Your task to perform on an android device: check google app version Image 0: 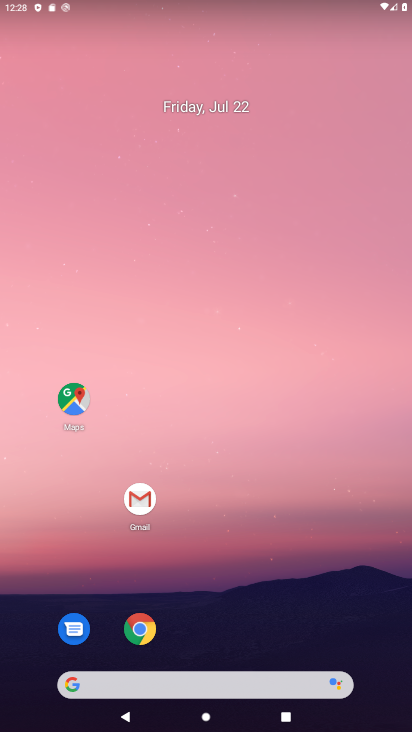
Step 0: drag from (262, 724) to (266, 257)
Your task to perform on an android device: check google app version Image 1: 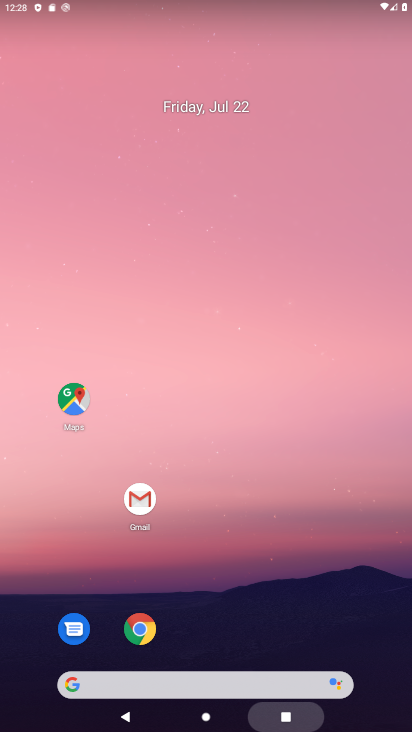
Step 1: drag from (236, 478) to (227, 186)
Your task to perform on an android device: check google app version Image 2: 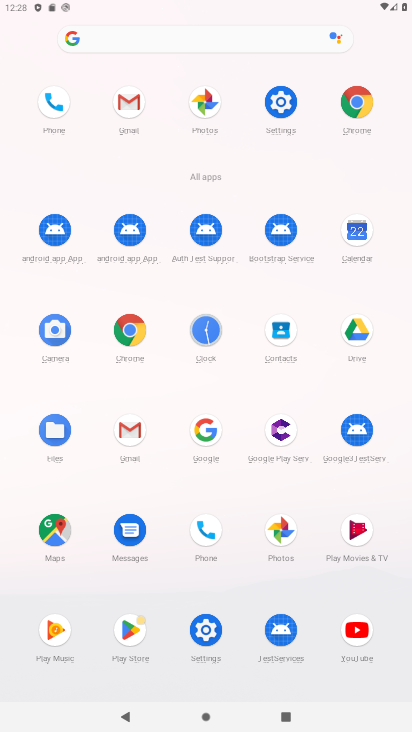
Step 2: click (208, 430)
Your task to perform on an android device: check google app version Image 3: 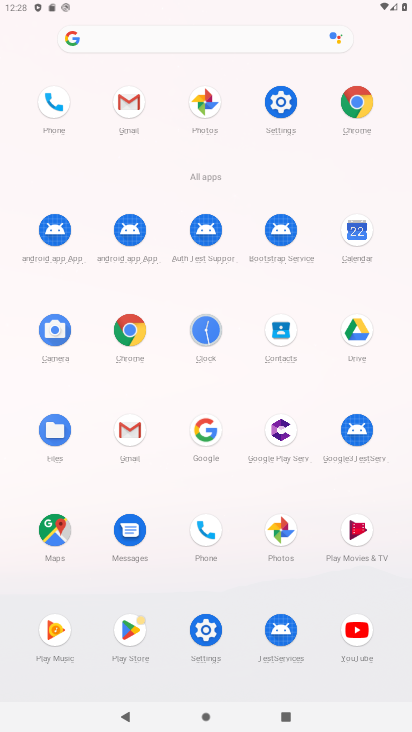
Step 3: click (208, 429)
Your task to perform on an android device: check google app version Image 4: 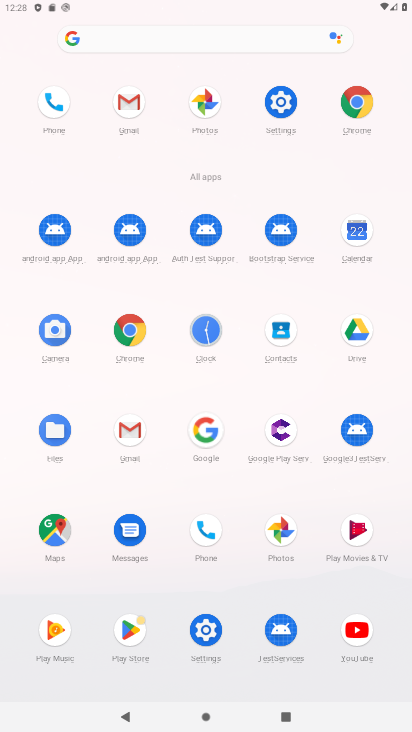
Step 4: click (208, 429)
Your task to perform on an android device: check google app version Image 5: 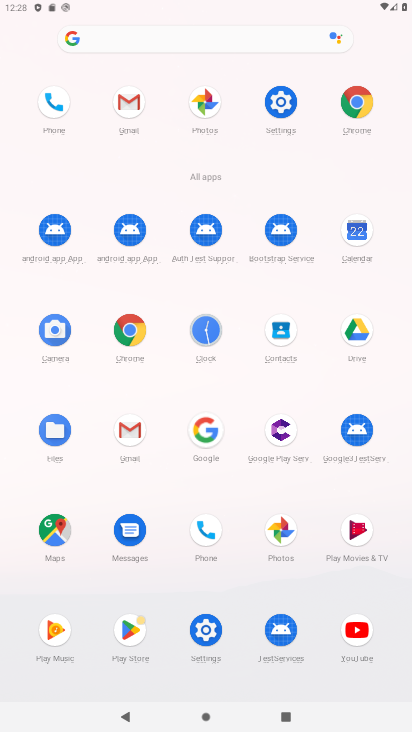
Step 5: click (208, 429)
Your task to perform on an android device: check google app version Image 6: 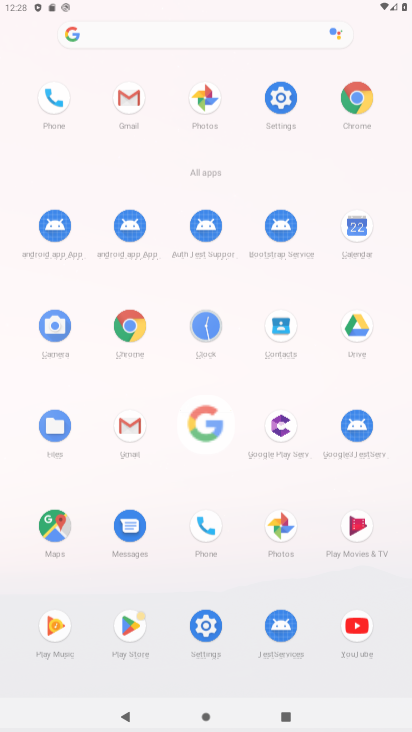
Step 6: click (208, 429)
Your task to perform on an android device: check google app version Image 7: 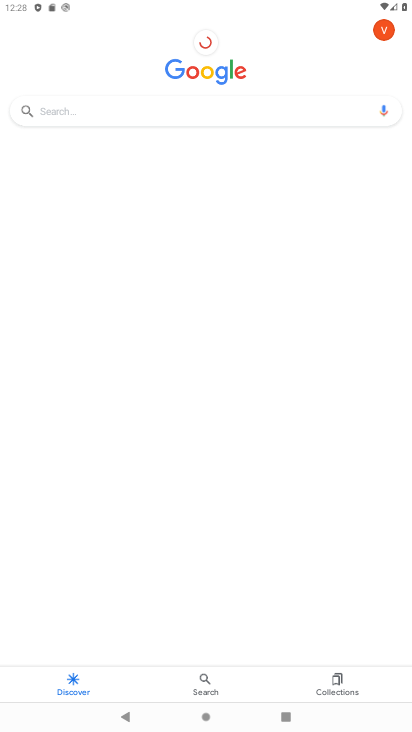
Step 7: drag from (382, 46) to (335, 480)
Your task to perform on an android device: check google app version Image 8: 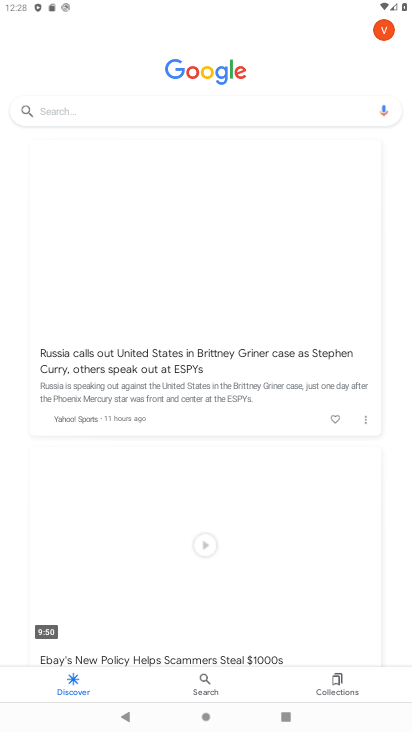
Step 8: drag from (384, 32) to (320, 425)
Your task to perform on an android device: check google app version Image 9: 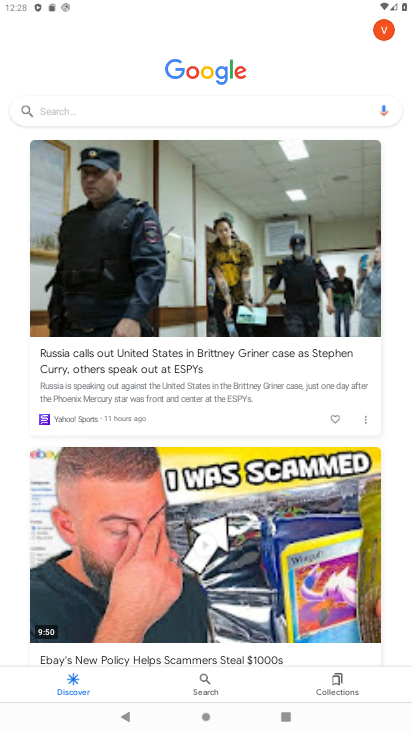
Step 9: drag from (392, 30) to (318, 389)
Your task to perform on an android device: check google app version Image 10: 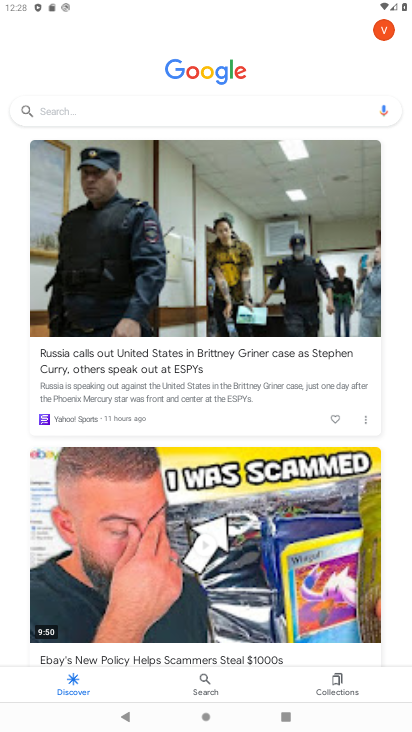
Step 10: drag from (374, 35) to (260, 425)
Your task to perform on an android device: check google app version Image 11: 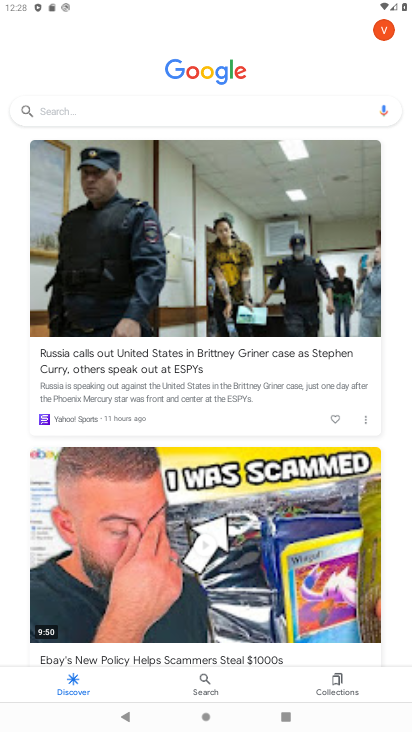
Step 11: drag from (385, 34) to (392, 374)
Your task to perform on an android device: check google app version Image 12: 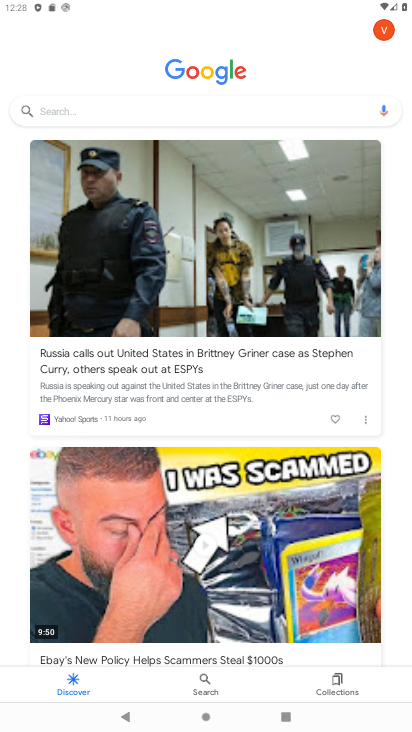
Step 12: drag from (388, 37) to (352, 348)
Your task to perform on an android device: check google app version Image 13: 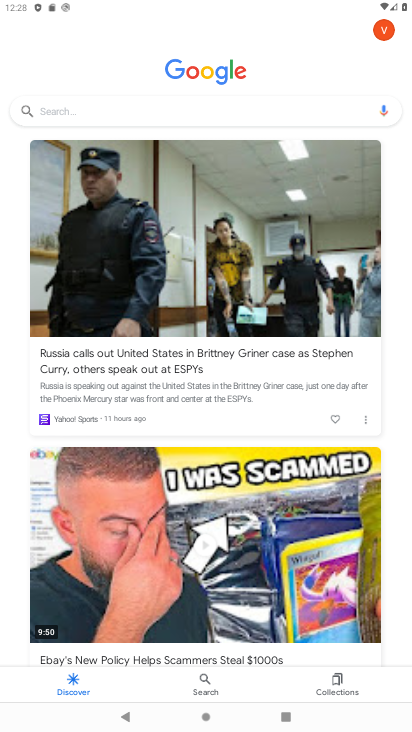
Step 13: click (385, 37)
Your task to perform on an android device: check google app version Image 14: 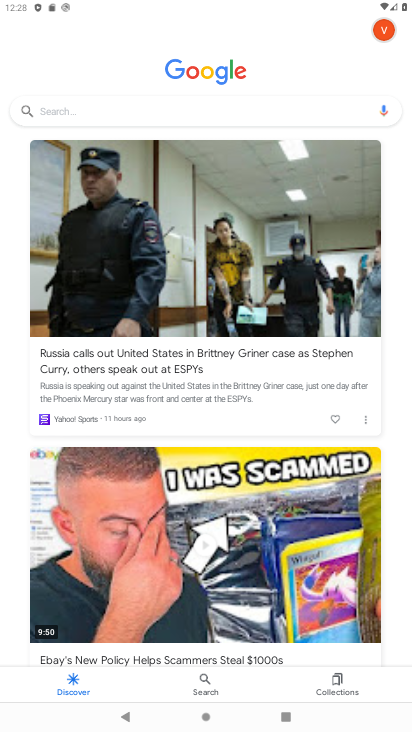
Step 14: drag from (385, 37) to (284, 338)
Your task to perform on an android device: check google app version Image 15: 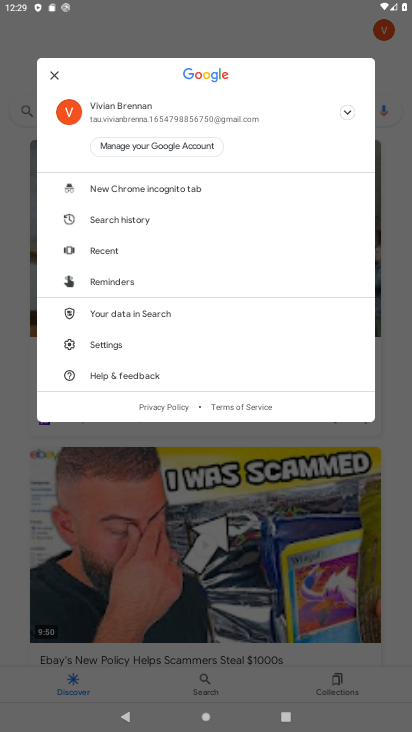
Step 15: click (110, 349)
Your task to perform on an android device: check google app version Image 16: 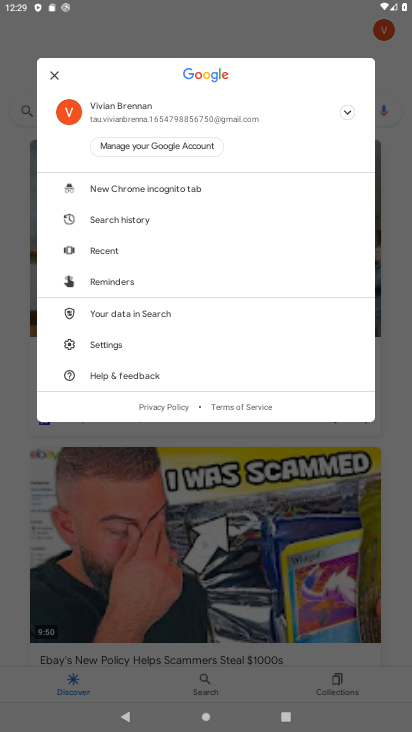
Step 16: click (107, 345)
Your task to perform on an android device: check google app version Image 17: 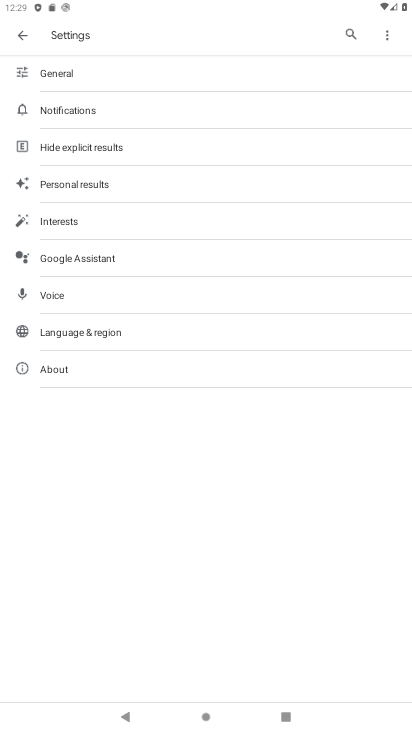
Step 17: click (57, 371)
Your task to perform on an android device: check google app version Image 18: 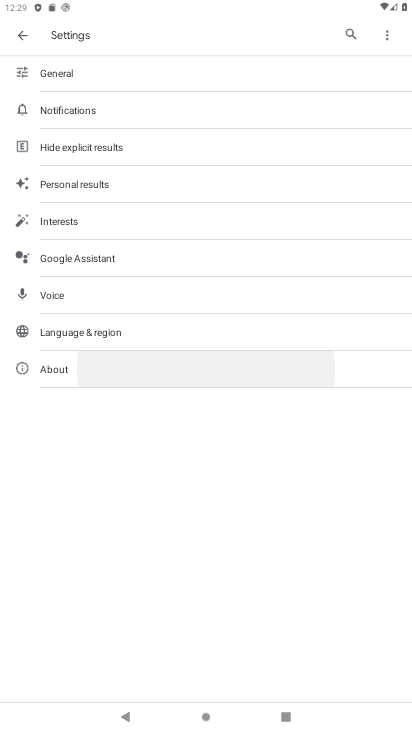
Step 18: click (57, 371)
Your task to perform on an android device: check google app version Image 19: 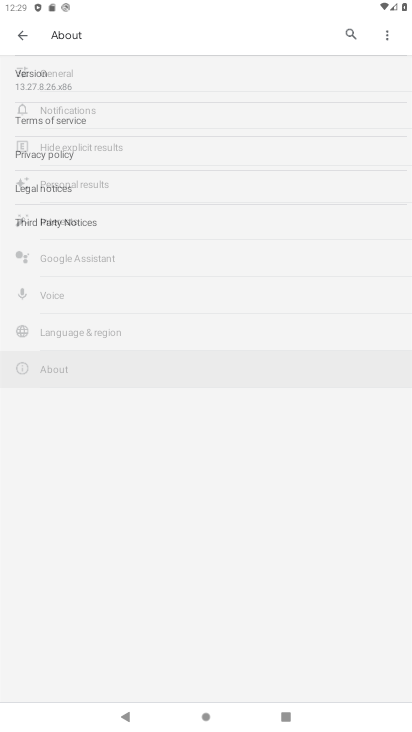
Step 19: click (57, 371)
Your task to perform on an android device: check google app version Image 20: 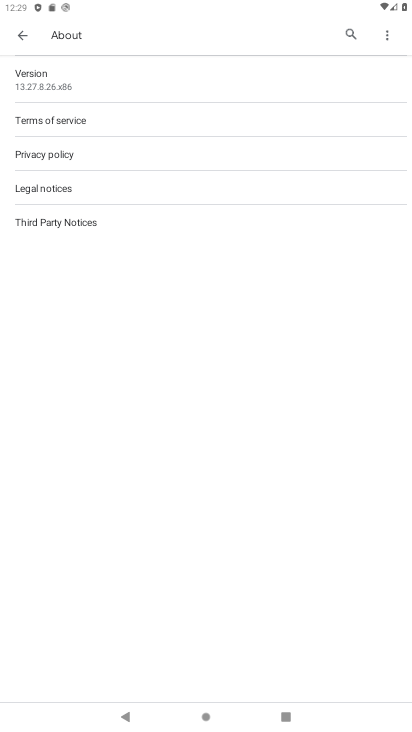
Step 20: click (60, 86)
Your task to perform on an android device: check google app version Image 21: 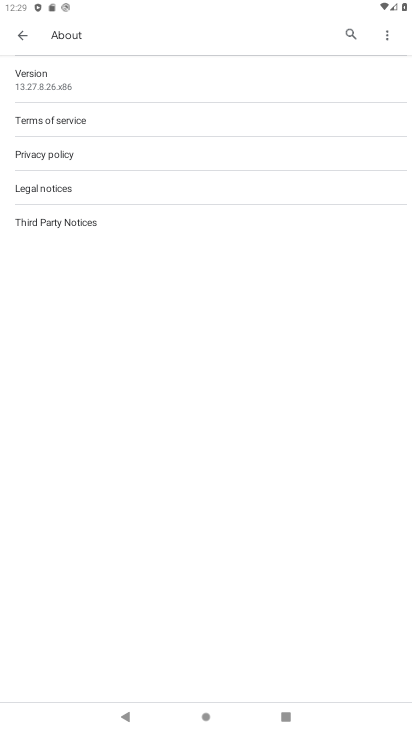
Step 21: click (50, 90)
Your task to perform on an android device: check google app version Image 22: 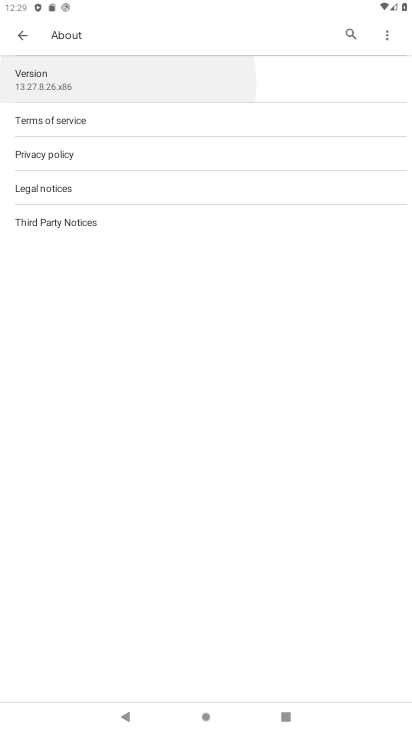
Step 22: click (53, 80)
Your task to perform on an android device: check google app version Image 23: 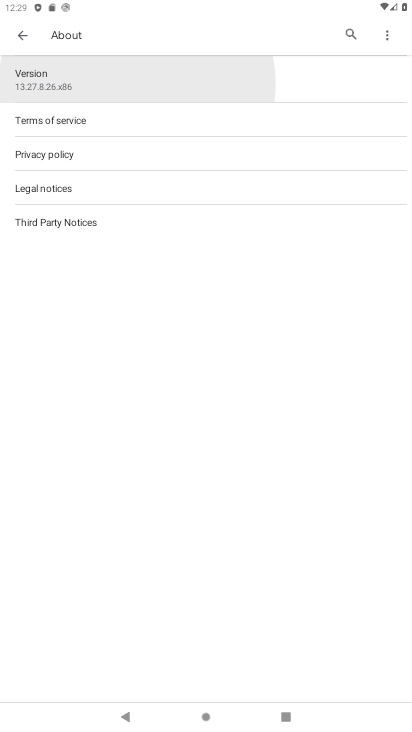
Step 23: click (54, 80)
Your task to perform on an android device: check google app version Image 24: 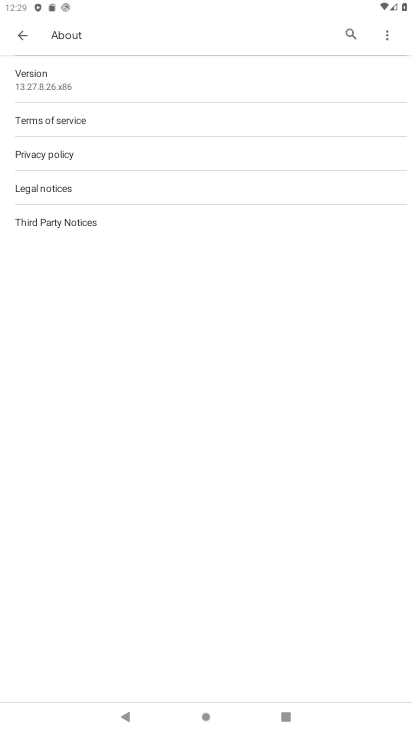
Step 24: task complete